Your task to perform on an android device: What's the weather going to be this weekend? Image 0: 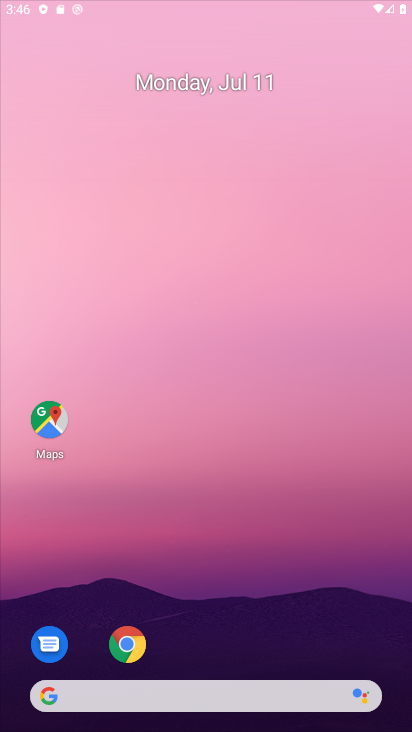
Step 0: press home button
Your task to perform on an android device: What's the weather going to be this weekend? Image 1: 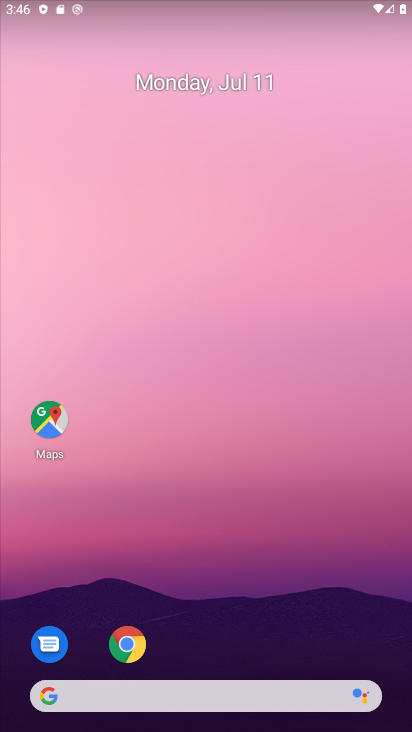
Step 1: drag from (225, 666) to (210, 0)
Your task to perform on an android device: What's the weather going to be this weekend? Image 2: 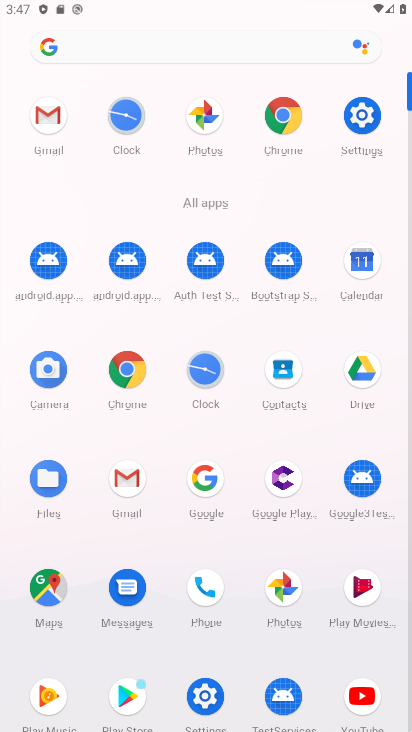
Step 2: press home button
Your task to perform on an android device: What's the weather going to be this weekend? Image 3: 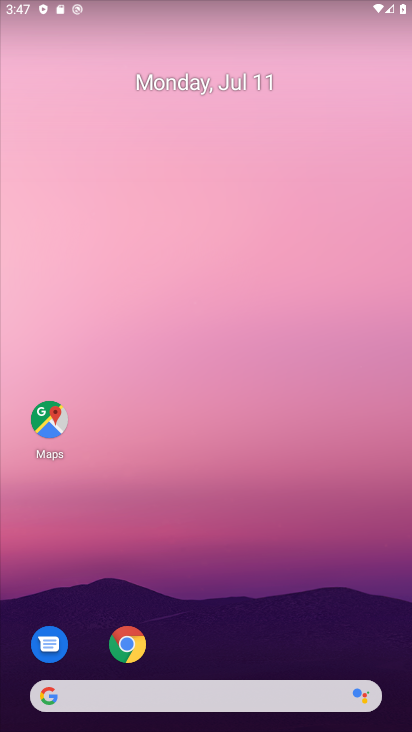
Step 3: drag from (10, 298) to (398, 283)
Your task to perform on an android device: What's the weather going to be this weekend? Image 4: 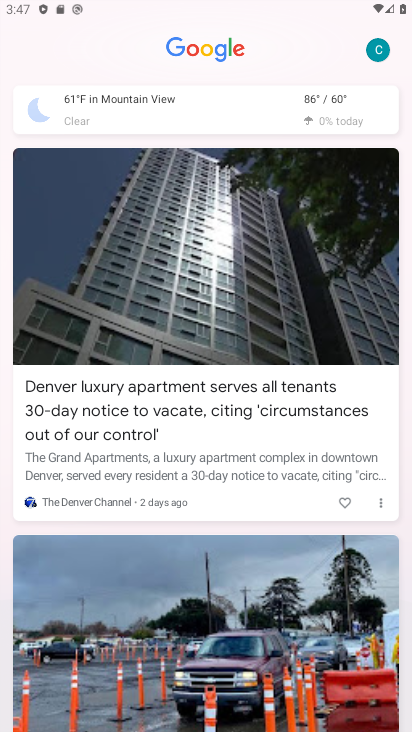
Step 4: click (316, 103)
Your task to perform on an android device: What's the weather going to be this weekend? Image 5: 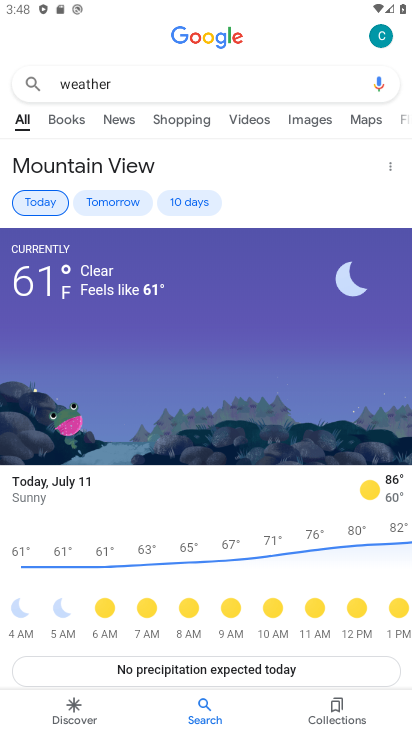
Step 5: click (190, 197)
Your task to perform on an android device: What's the weather going to be this weekend? Image 6: 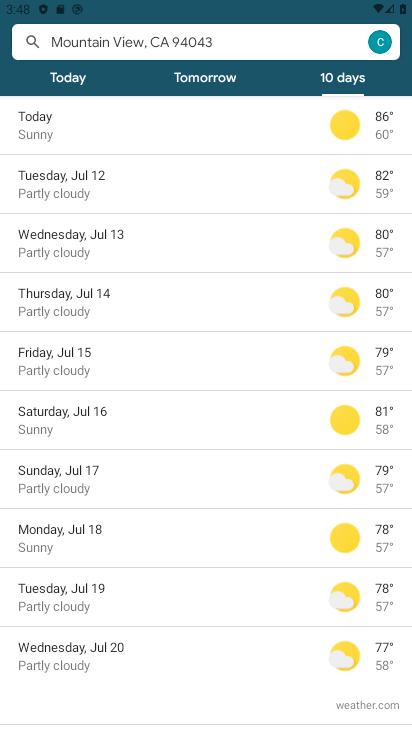
Step 6: task complete